Your task to perform on an android device: Show the shopping cart on costco.com. Search for "logitech g933" on costco.com, select the first entry, add it to the cart, then select checkout. Image 0: 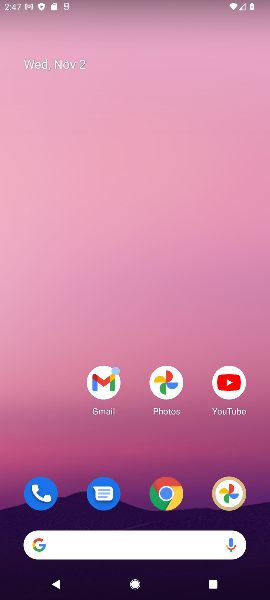
Step 0: click (163, 493)
Your task to perform on an android device: Show the shopping cart on costco.com. Search for "logitech g933" on costco.com, select the first entry, add it to the cart, then select checkout. Image 1: 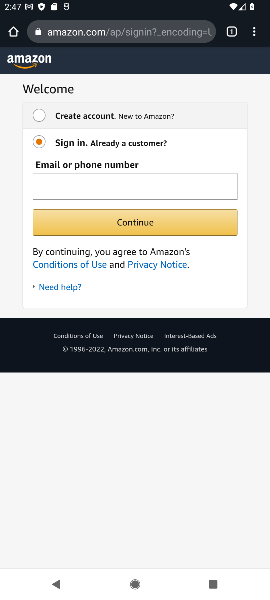
Step 1: click (117, 26)
Your task to perform on an android device: Show the shopping cart on costco.com. Search for "logitech g933" on costco.com, select the first entry, add it to the cart, then select checkout. Image 2: 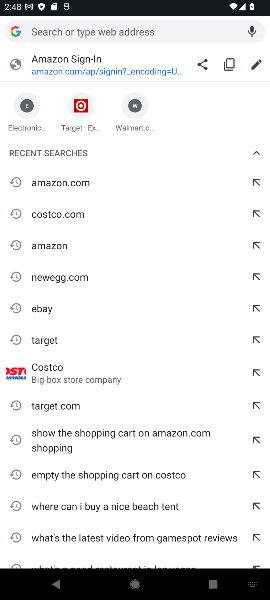
Step 2: type "costco.com"
Your task to perform on an android device: Show the shopping cart on costco.com. Search for "logitech g933" on costco.com, select the first entry, add it to the cart, then select checkout. Image 3: 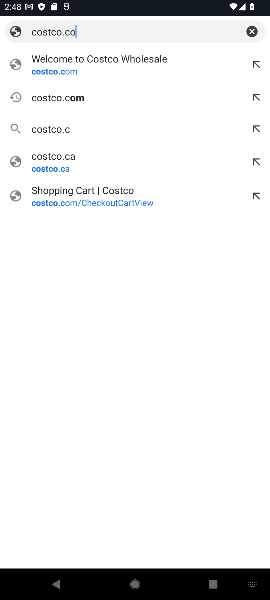
Step 3: press enter
Your task to perform on an android device: Show the shopping cart on costco.com. Search for "logitech g933" on costco.com, select the first entry, add it to the cart, then select checkout. Image 4: 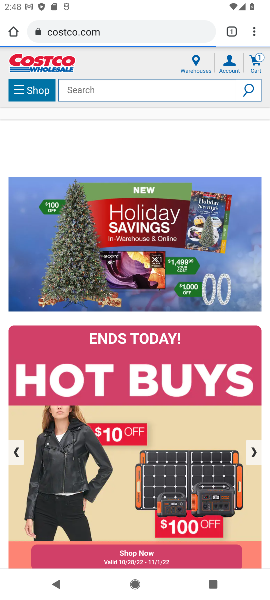
Step 4: click (255, 69)
Your task to perform on an android device: Show the shopping cart on costco.com. Search for "logitech g933" on costco.com, select the first entry, add it to the cart, then select checkout. Image 5: 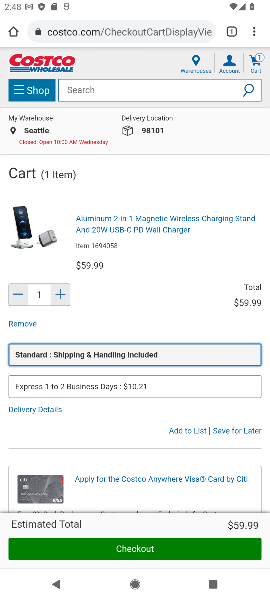
Step 5: click (173, 90)
Your task to perform on an android device: Show the shopping cart on costco.com. Search for "logitech g933" on costco.com, select the first entry, add it to the cart, then select checkout. Image 6: 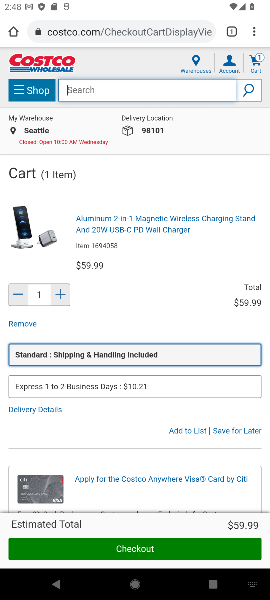
Step 6: press enter
Your task to perform on an android device: Show the shopping cart on costco.com. Search for "logitech g933" on costco.com, select the first entry, add it to the cart, then select checkout. Image 7: 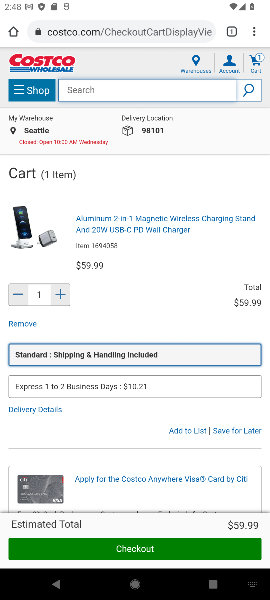
Step 7: type "logitech g933"
Your task to perform on an android device: Show the shopping cart on costco.com. Search for "logitech g933" on costco.com, select the first entry, add it to the cart, then select checkout. Image 8: 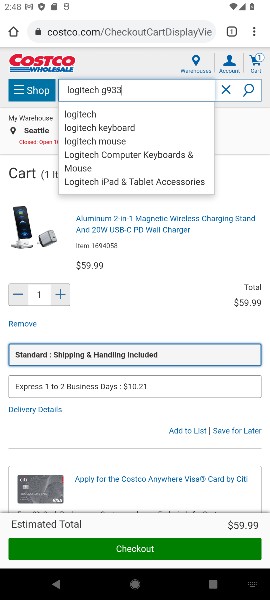
Step 8: click (247, 148)
Your task to perform on an android device: Show the shopping cart on costco.com. Search for "logitech g933" on costco.com, select the first entry, add it to the cart, then select checkout. Image 9: 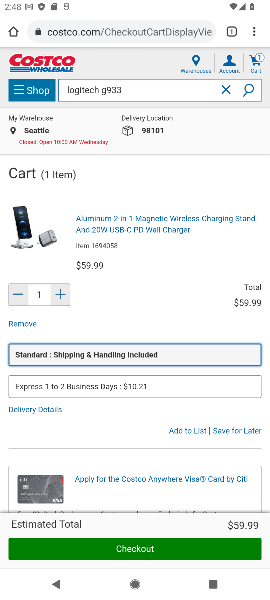
Step 9: click (167, 90)
Your task to perform on an android device: Show the shopping cart on costco.com. Search for "logitech g933" on costco.com, select the first entry, add it to the cart, then select checkout. Image 10: 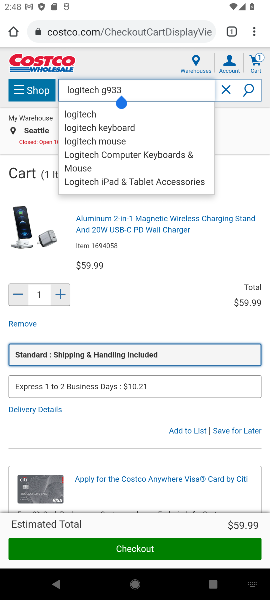
Step 10: click (74, 111)
Your task to perform on an android device: Show the shopping cart on costco.com. Search for "logitech g933" on costco.com, select the first entry, add it to the cart, then select checkout. Image 11: 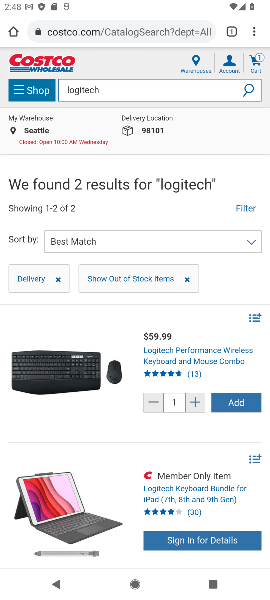
Step 11: click (139, 193)
Your task to perform on an android device: Show the shopping cart on costco.com. Search for "logitech g933" on costco.com, select the first entry, add it to the cart, then select checkout. Image 12: 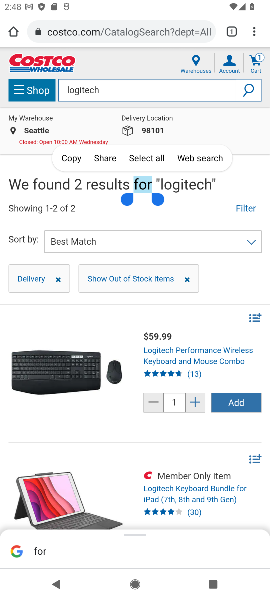
Step 12: task complete